Your task to perform on an android device: clear history in the chrome app Image 0: 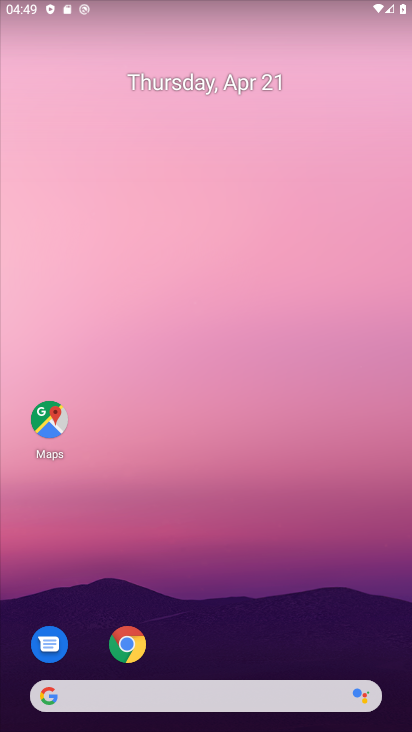
Step 0: drag from (278, 542) to (293, 202)
Your task to perform on an android device: clear history in the chrome app Image 1: 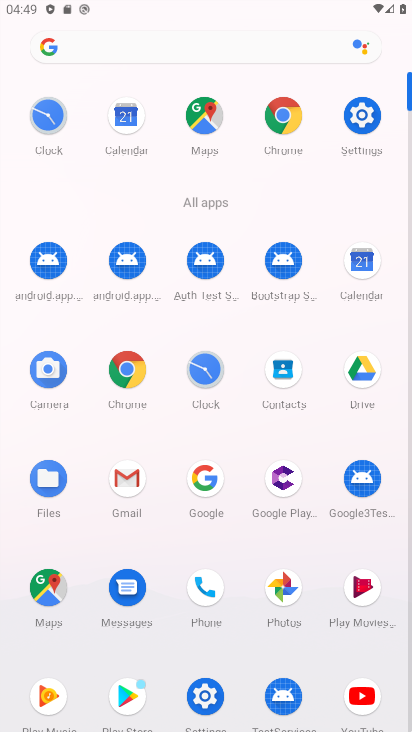
Step 1: click (126, 366)
Your task to perform on an android device: clear history in the chrome app Image 2: 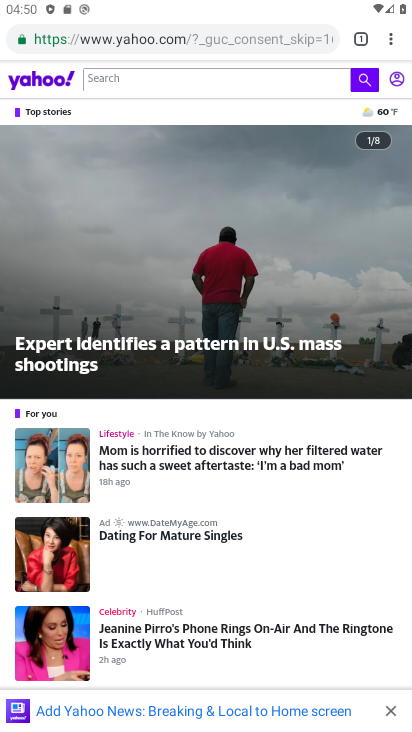
Step 2: drag from (391, 36) to (248, 224)
Your task to perform on an android device: clear history in the chrome app Image 3: 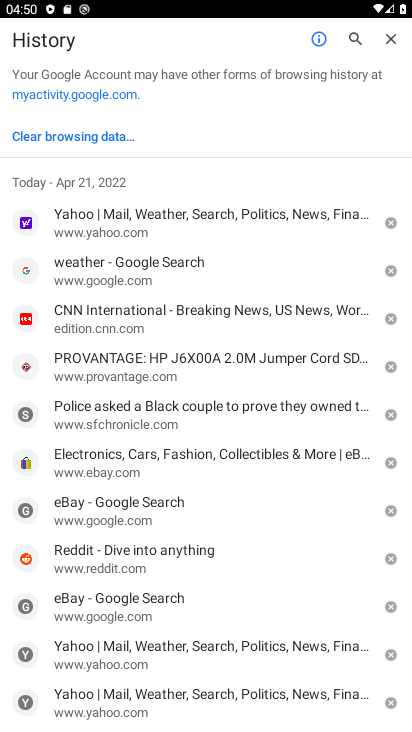
Step 3: click (75, 134)
Your task to perform on an android device: clear history in the chrome app Image 4: 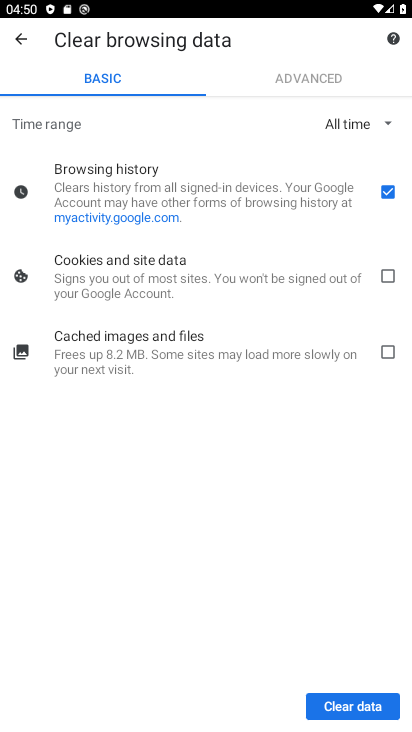
Step 4: click (358, 701)
Your task to perform on an android device: clear history in the chrome app Image 5: 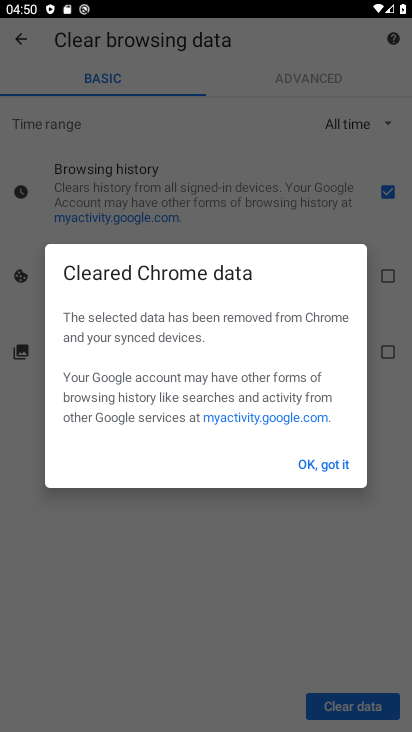
Step 5: click (327, 462)
Your task to perform on an android device: clear history in the chrome app Image 6: 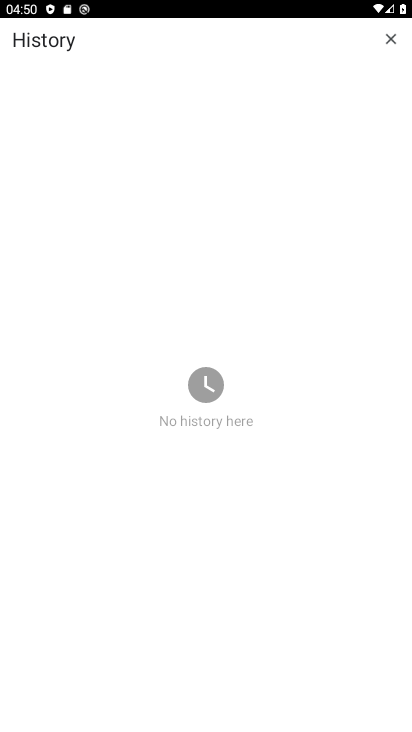
Step 6: task complete